Your task to perform on an android device: Open display settings Image 0: 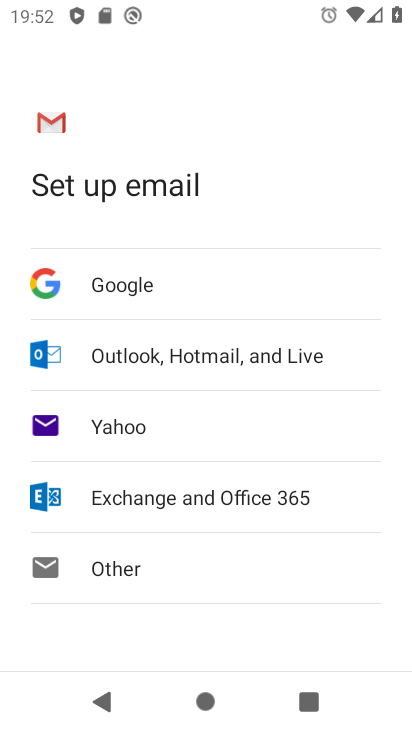
Step 0: press home button
Your task to perform on an android device: Open display settings Image 1: 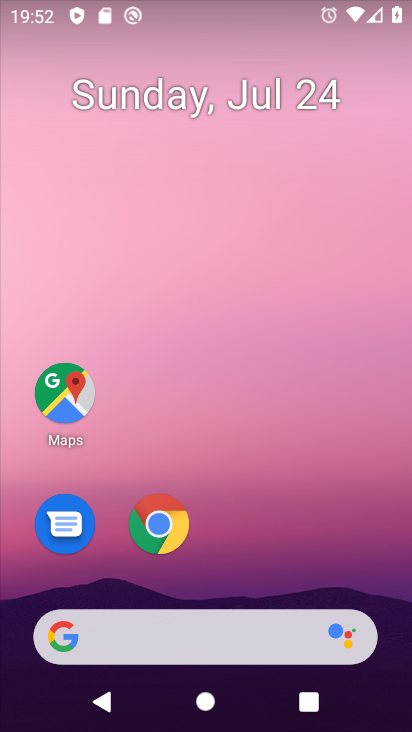
Step 1: drag from (291, 572) to (292, 46)
Your task to perform on an android device: Open display settings Image 2: 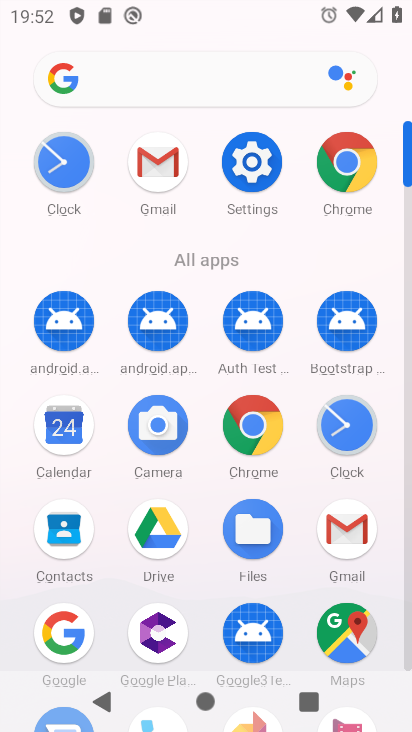
Step 2: click (262, 161)
Your task to perform on an android device: Open display settings Image 3: 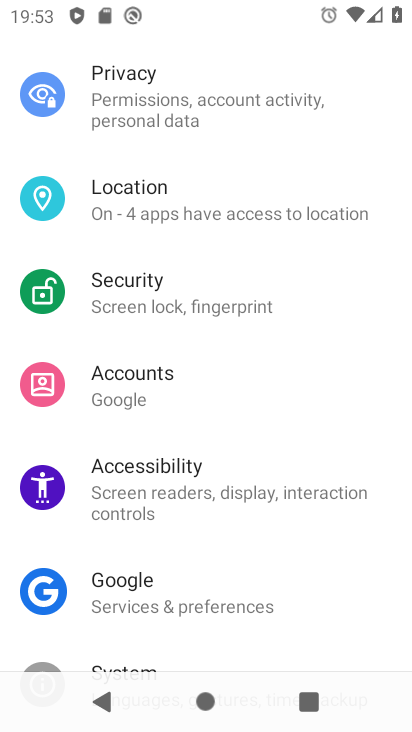
Step 3: drag from (259, 189) to (243, 652)
Your task to perform on an android device: Open display settings Image 4: 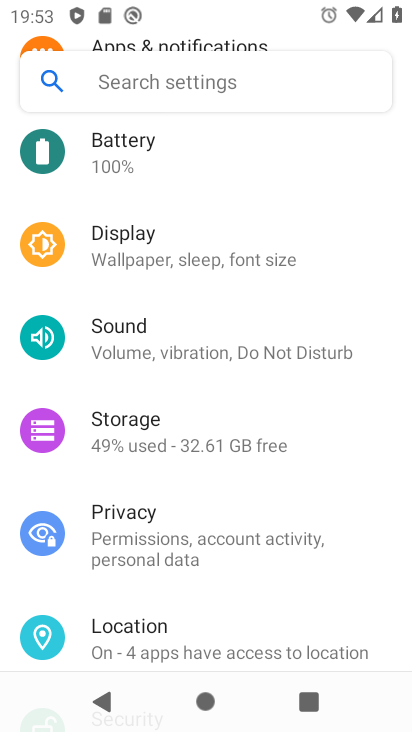
Step 4: click (186, 252)
Your task to perform on an android device: Open display settings Image 5: 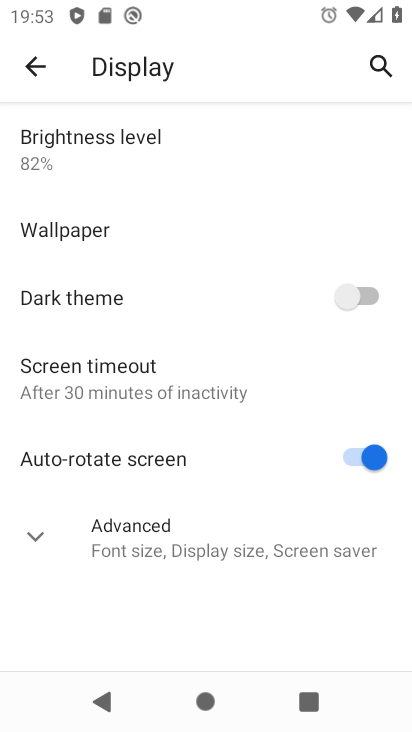
Step 5: click (37, 532)
Your task to perform on an android device: Open display settings Image 6: 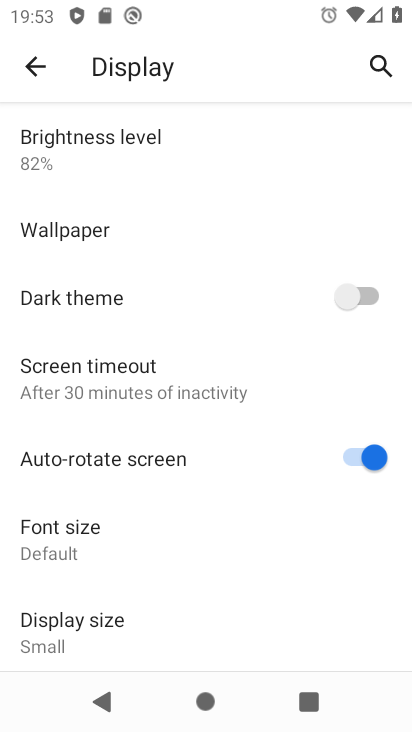
Step 6: task complete